Your task to perform on an android device: toggle data saver in the chrome app Image 0: 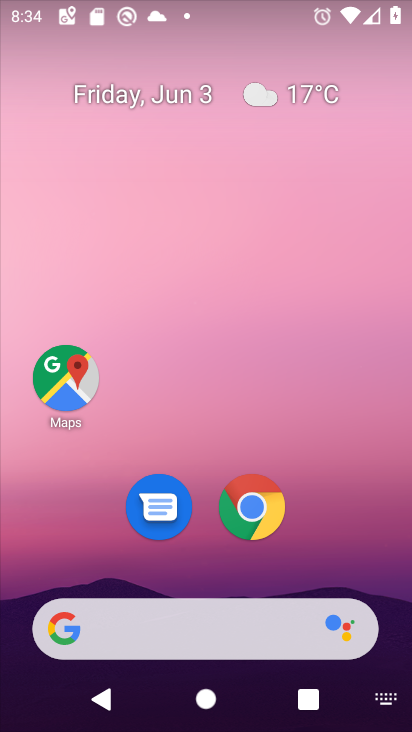
Step 0: click (274, 516)
Your task to perform on an android device: toggle data saver in the chrome app Image 1: 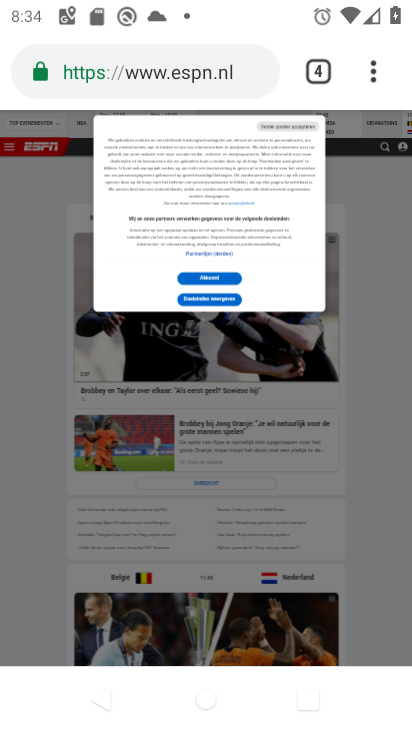
Step 1: click (375, 70)
Your task to perform on an android device: toggle data saver in the chrome app Image 2: 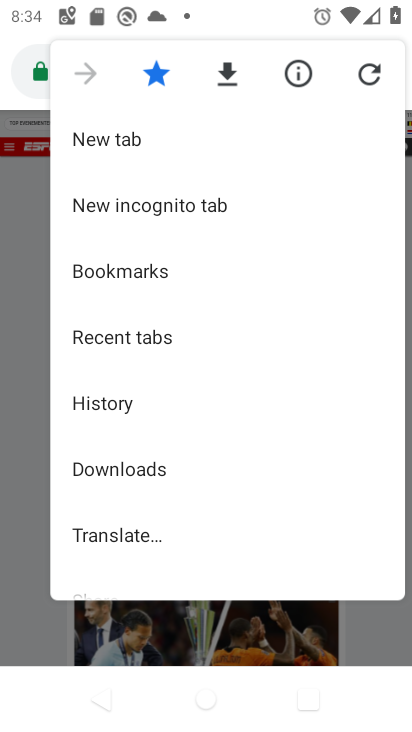
Step 2: drag from (218, 477) to (193, 12)
Your task to perform on an android device: toggle data saver in the chrome app Image 3: 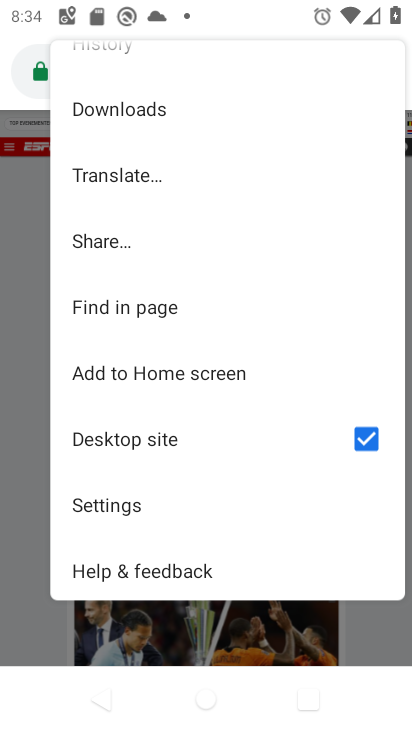
Step 3: click (177, 493)
Your task to perform on an android device: toggle data saver in the chrome app Image 4: 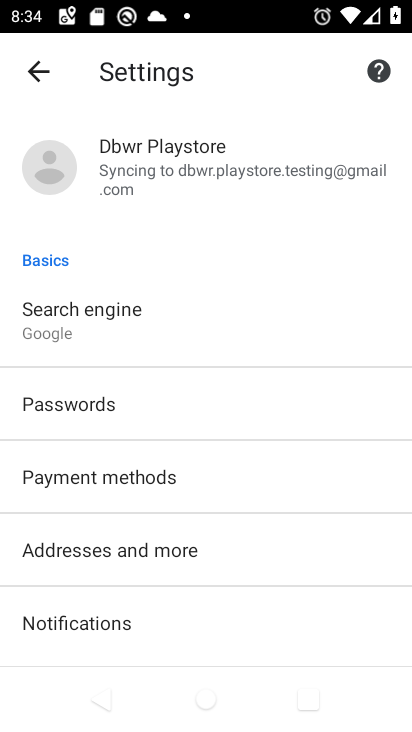
Step 4: drag from (207, 577) to (231, 124)
Your task to perform on an android device: toggle data saver in the chrome app Image 5: 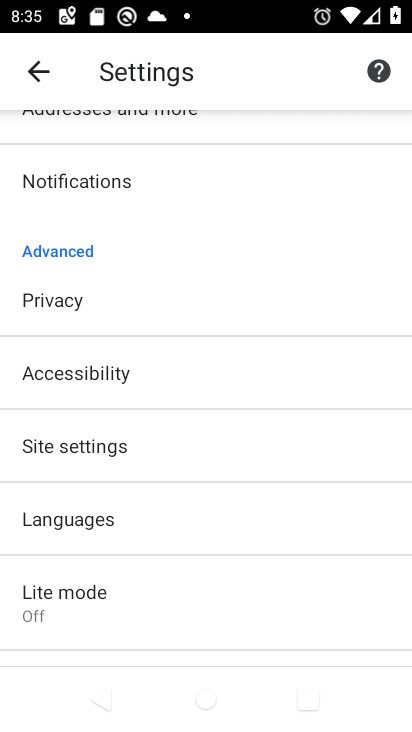
Step 5: click (125, 587)
Your task to perform on an android device: toggle data saver in the chrome app Image 6: 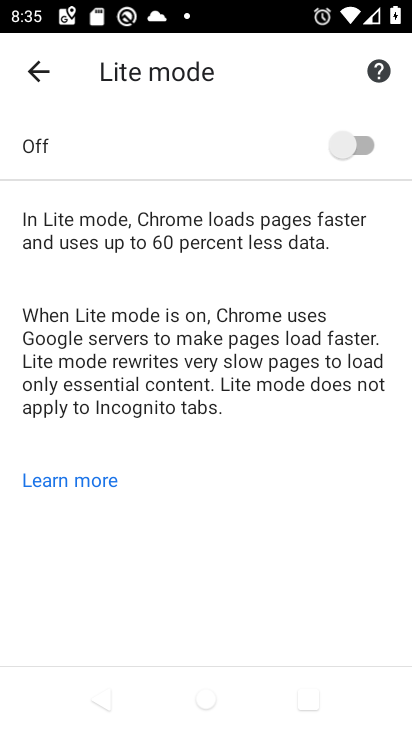
Step 6: click (363, 134)
Your task to perform on an android device: toggle data saver in the chrome app Image 7: 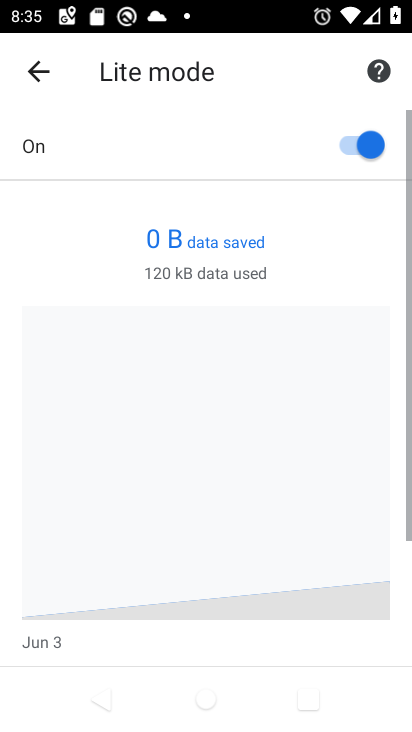
Step 7: task complete